Your task to perform on an android device: Open the calendar app, open the side menu, and click the "Day" option Image 0: 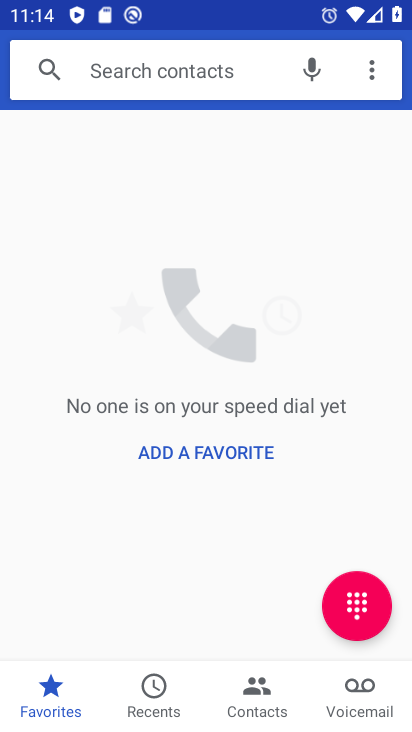
Step 0: press home button
Your task to perform on an android device: Open the calendar app, open the side menu, and click the "Day" option Image 1: 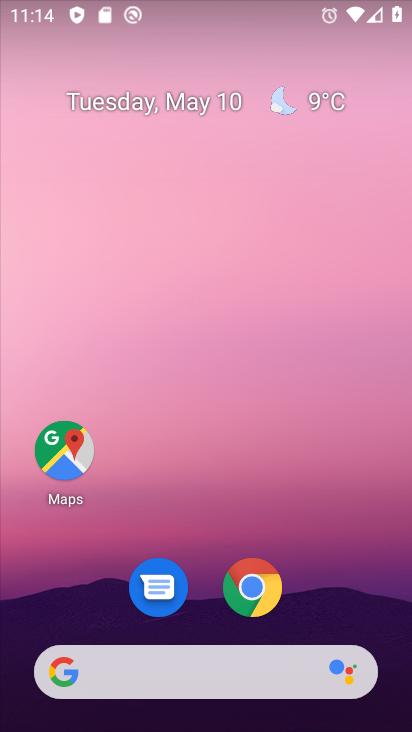
Step 1: drag from (351, 595) to (341, 17)
Your task to perform on an android device: Open the calendar app, open the side menu, and click the "Day" option Image 2: 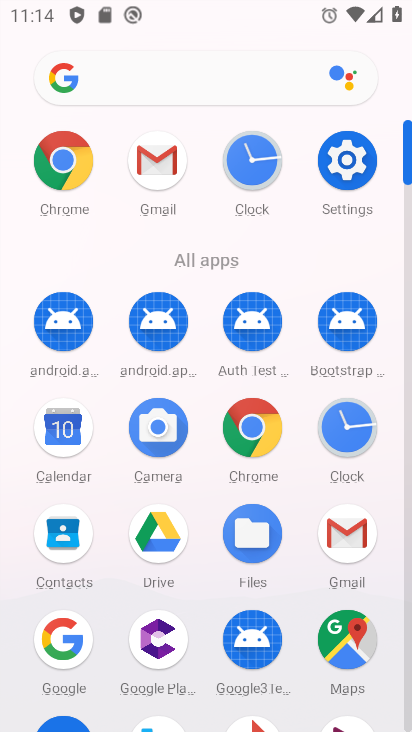
Step 2: click (52, 423)
Your task to perform on an android device: Open the calendar app, open the side menu, and click the "Day" option Image 3: 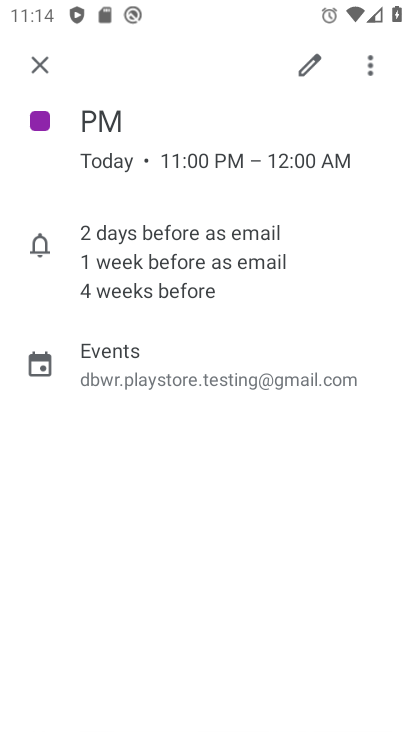
Step 3: click (34, 71)
Your task to perform on an android device: Open the calendar app, open the side menu, and click the "Day" option Image 4: 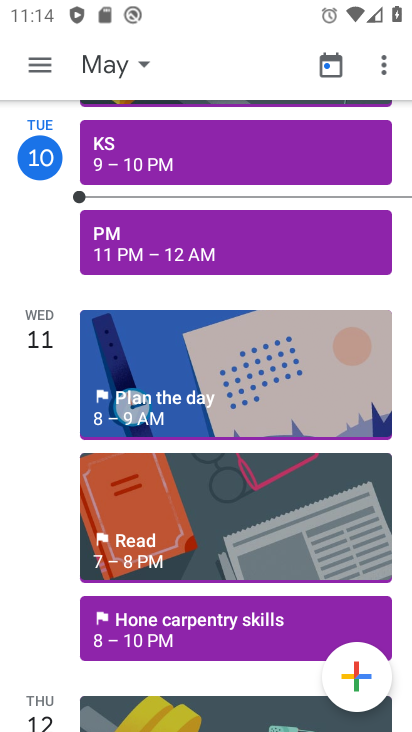
Step 4: click (40, 66)
Your task to perform on an android device: Open the calendar app, open the side menu, and click the "Day" option Image 5: 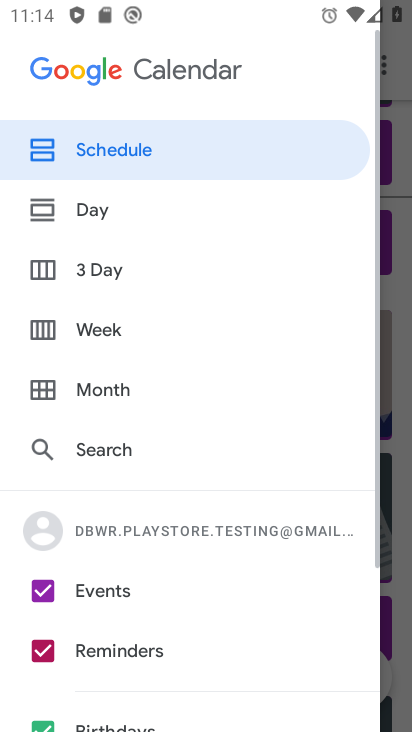
Step 5: click (98, 217)
Your task to perform on an android device: Open the calendar app, open the side menu, and click the "Day" option Image 6: 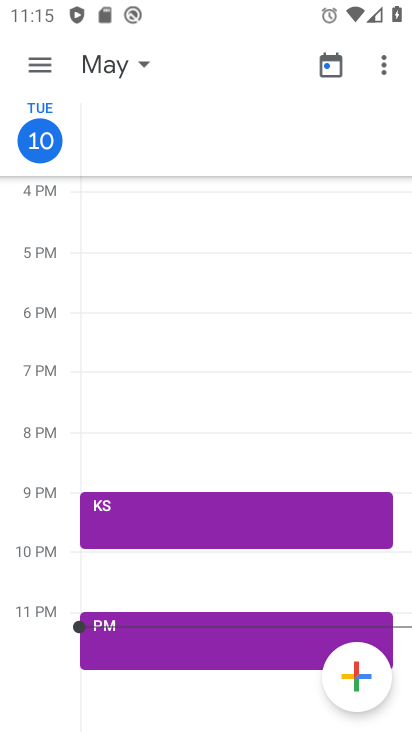
Step 6: task complete